Your task to perform on an android device: Open calendar and show me the fourth week of next month Image 0: 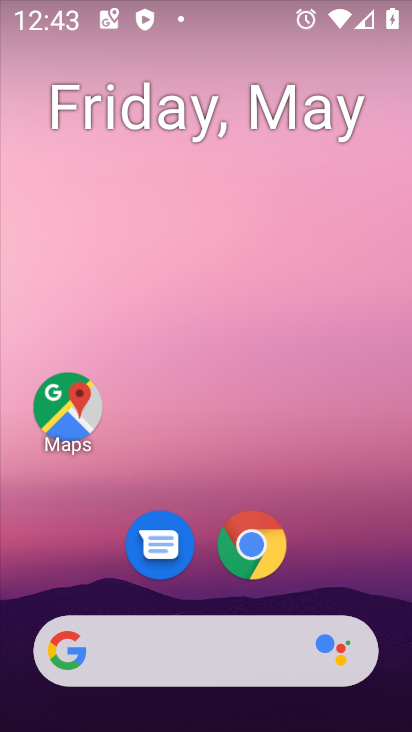
Step 0: drag from (361, 583) to (351, 253)
Your task to perform on an android device: Open calendar and show me the fourth week of next month Image 1: 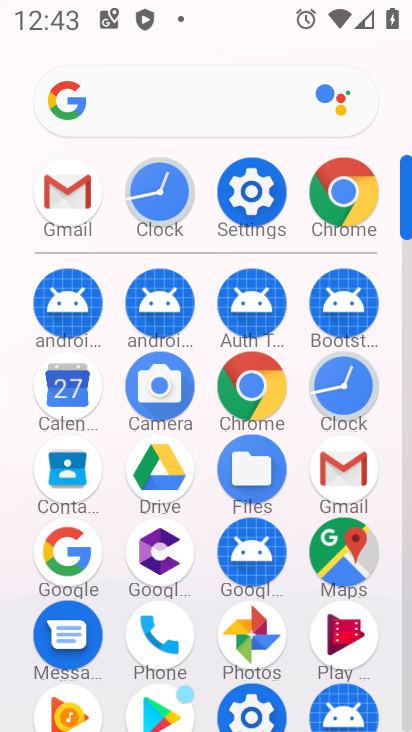
Step 1: click (66, 382)
Your task to perform on an android device: Open calendar and show me the fourth week of next month Image 2: 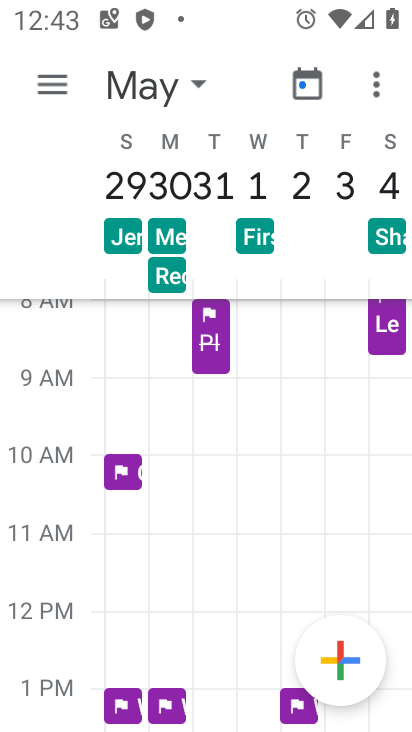
Step 2: click (48, 85)
Your task to perform on an android device: Open calendar and show me the fourth week of next month Image 3: 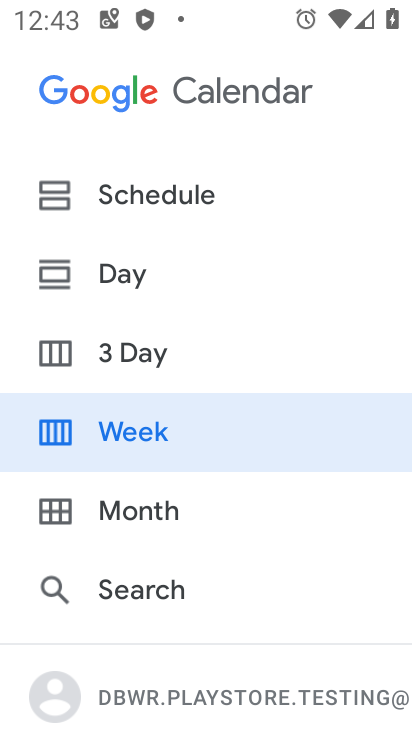
Step 3: click (156, 501)
Your task to perform on an android device: Open calendar and show me the fourth week of next month Image 4: 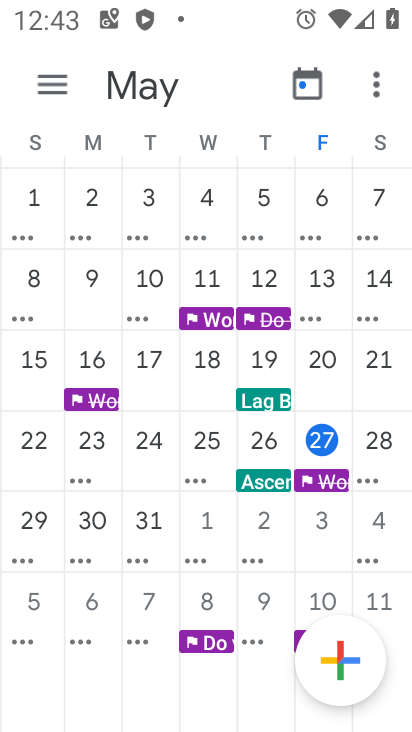
Step 4: task complete